Your task to perform on an android device: add a label to a message in the gmail app Image 0: 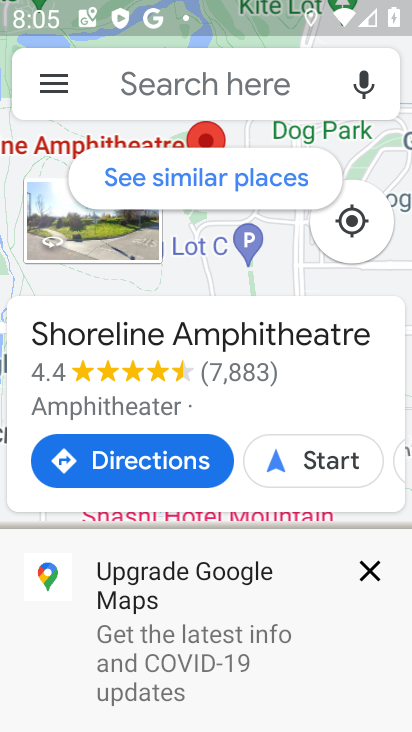
Step 0: click (368, 568)
Your task to perform on an android device: add a label to a message in the gmail app Image 1: 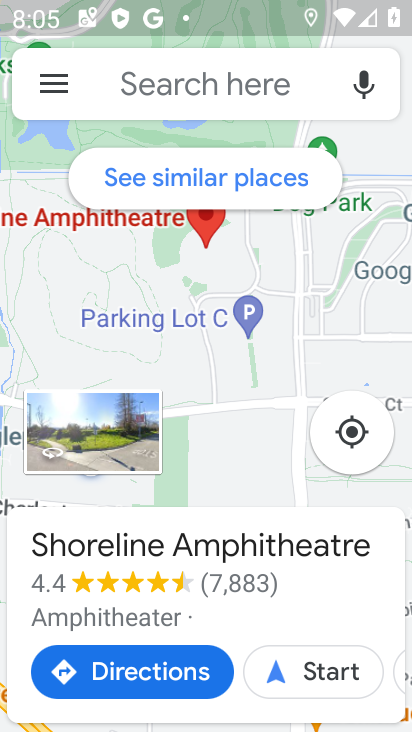
Step 1: press home button
Your task to perform on an android device: add a label to a message in the gmail app Image 2: 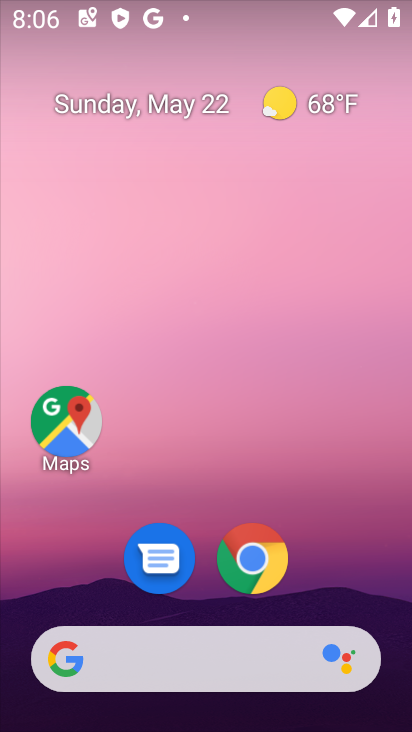
Step 2: drag from (334, 505) to (305, 242)
Your task to perform on an android device: add a label to a message in the gmail app Image 3: 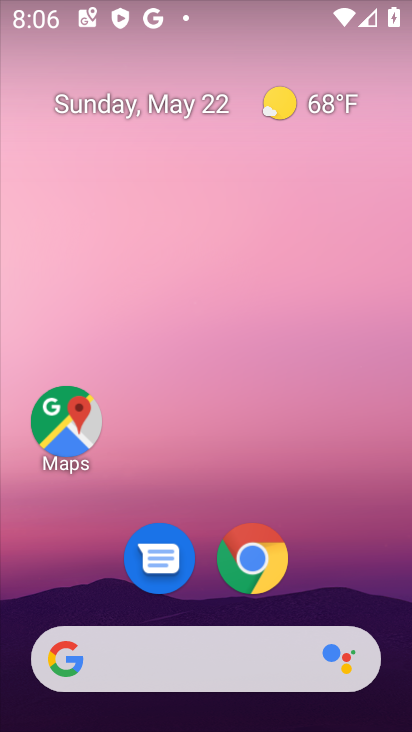
Step 3: drag from (382, 483) to (304, 212)
Your task to perform on an android device: add a label to a message in the gmail app Image 4: 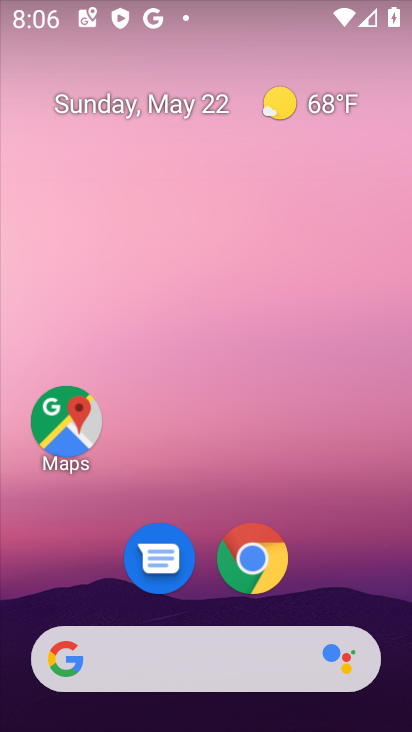
Step 4: drag from (315, 571) to (296, 244)
Your task to perform on an android device: add a label to a message in the gmail app Image 5: 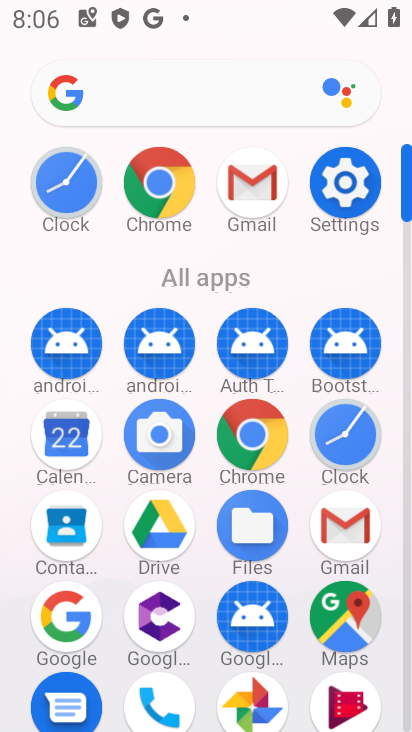
Step 5: click (333, 512)
Your task to perform on an android device: add a label to a message in the gmail app Image 6: 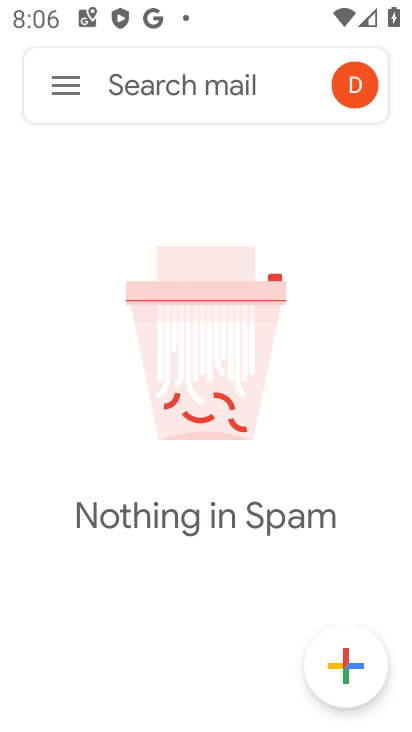
Step 6: click (50, 78)
Your task to perform on an android device: add a label to a message in the gmail app Image 7: 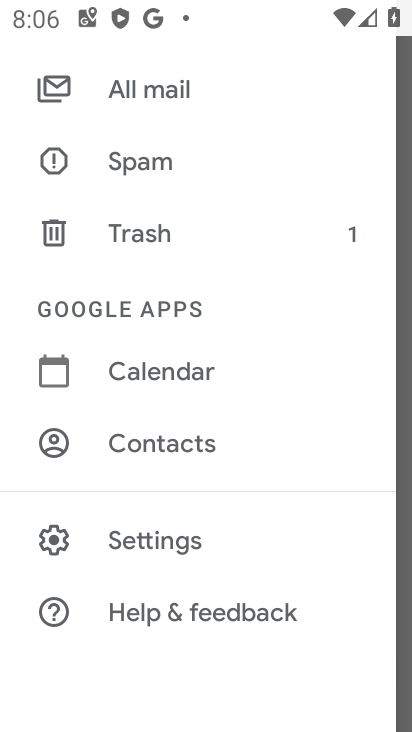
Step 7: drag from (170, 169) to (163, 607)
Your task to perform on an android device: add a label to a message in the gmail app Image 8: 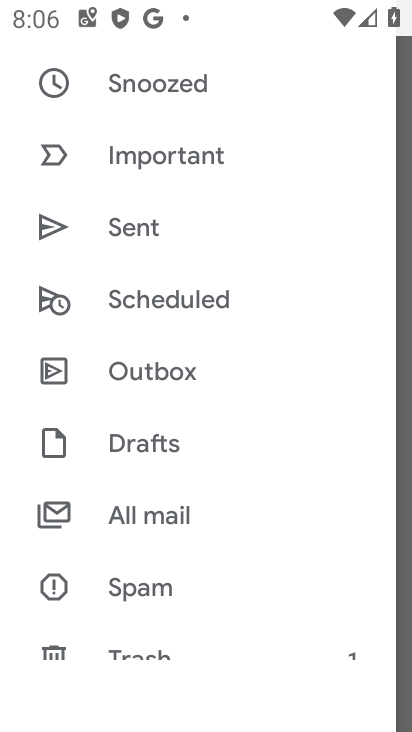
Step 8: drag from (186, 161) to (150, 544)
Your task to perform on an android device: add a label to a message in the gmail app Image 9: 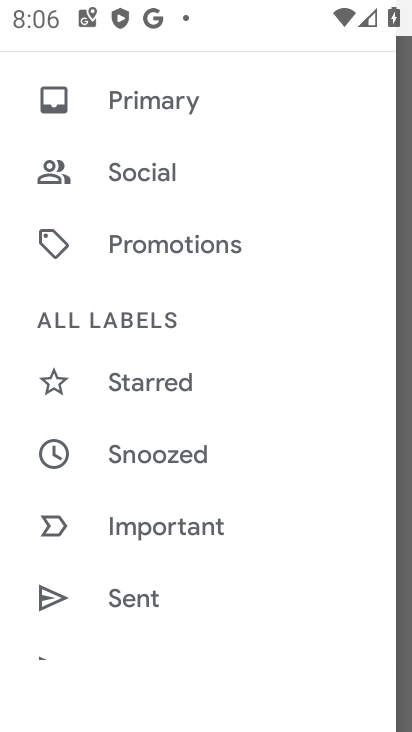
Step 9: drag from (171, 138) to (153, 591)
Your task to perform on an android device: add a label to a message in the gmail app Image 10: 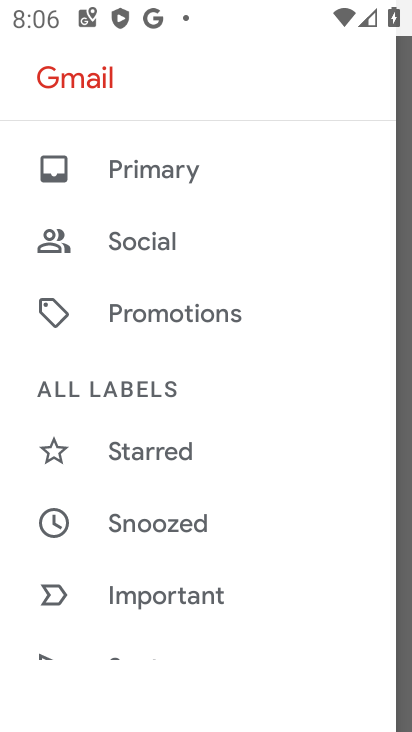
Step 10: click (122, 152)
Your task to perform on an android device: add a label to a message in the gmail app Image 11: 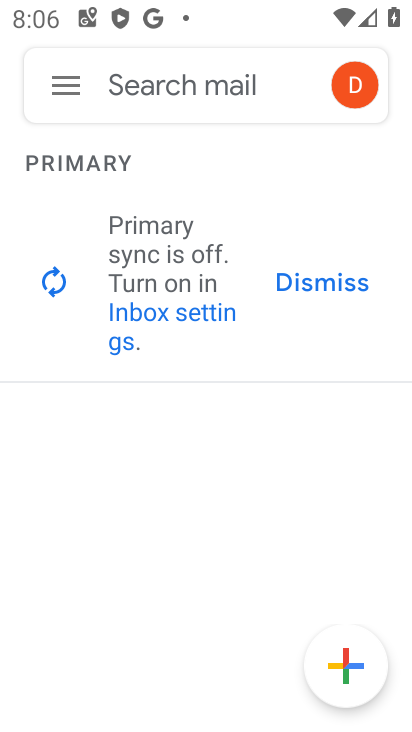
Step 11: click (66, 87)
Your task to perform on an android device: add a label to a message in the gmail app Image 12: 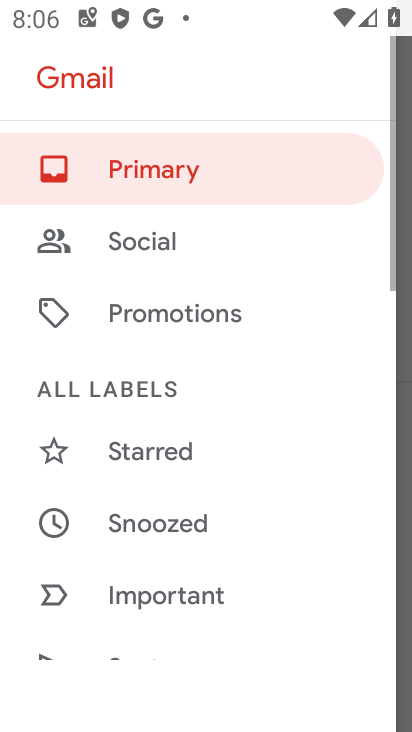
Step 12: drag from (189, 594) to (241, 171)
Your task to perform on an android device: add a label to a message in the gmail app Image 13: 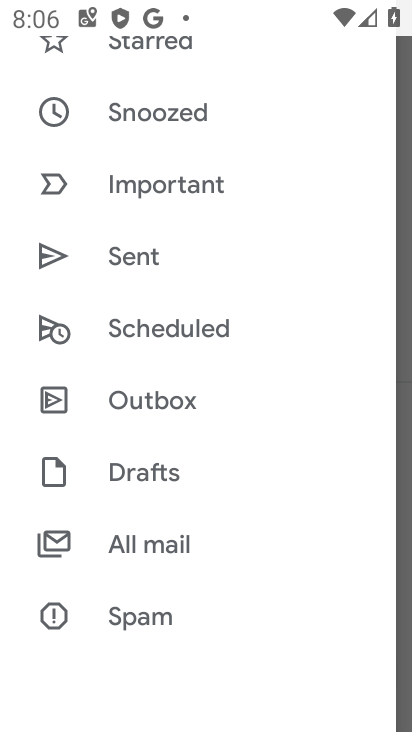
Step 13: click (168, 539)
Your task to perform on an android device: add a label to a message in the gmail app Image 14: 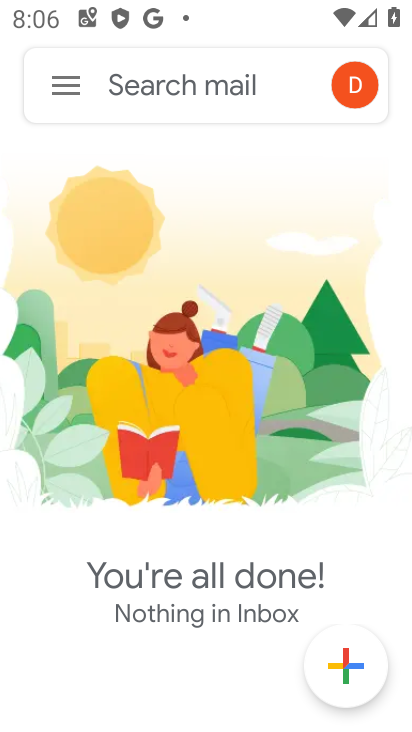
Step 14: task complete